Your task to perform on an android device: turn off airplane mode Image 0: 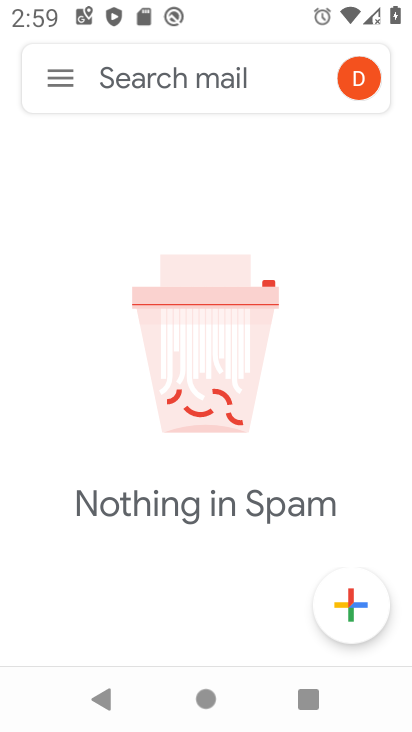
Step 0: press home button
Your task to perform on an android device: turn off airplane mode Image 1: 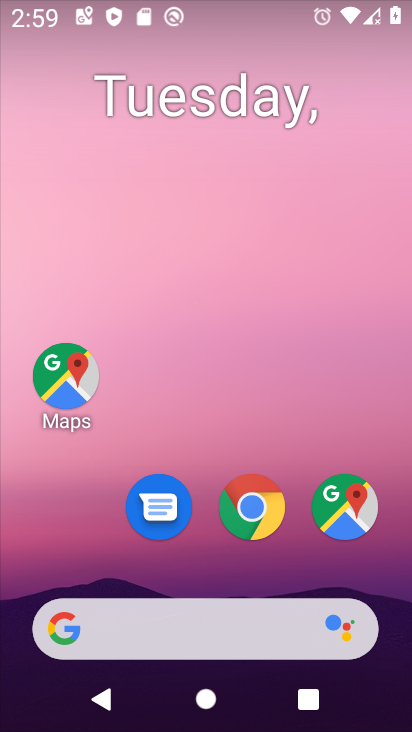
Step 1: drag from (220, 435) to (230, 265)
Your task to perform on an android device: turn off airplane mode Image 2: 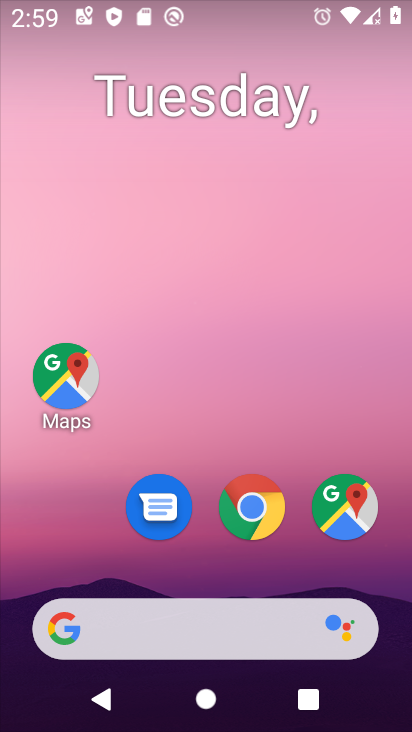
Step 2: drag from (213, 555) to (253, 157)
Your task to perform on an android device: turn off airplane mode Image 3: 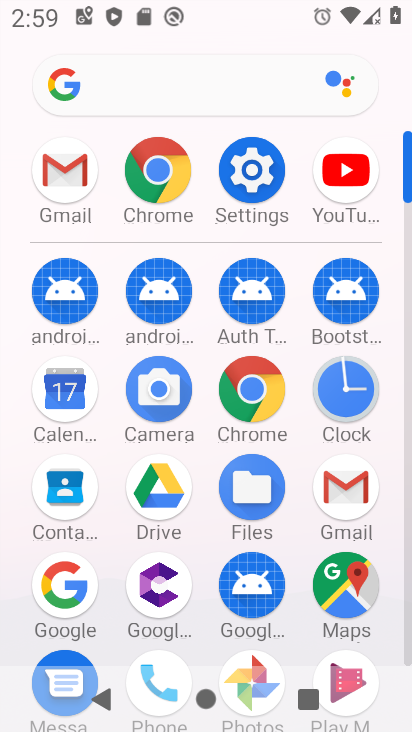
Step 3: click (245, 152)
Your task to perform on an android device: turn off airplane mode Image 4: 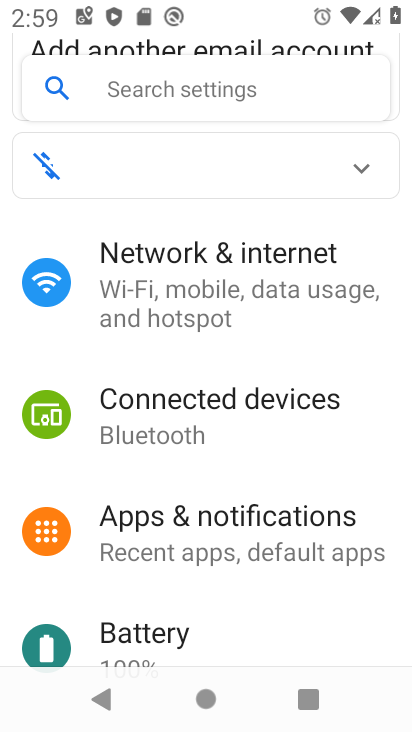
Step 4: click (206, 271)
Your task to perform on an android device: turn off airplane mode Image 5: 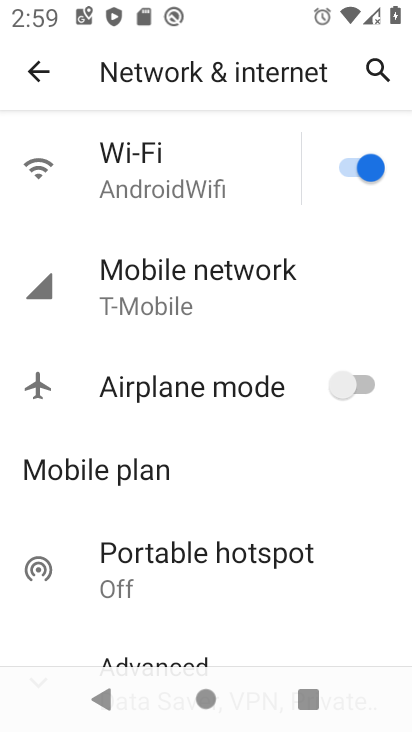
Step 5: task complete